Your task to perform on an android device: turn on location history Image 0: 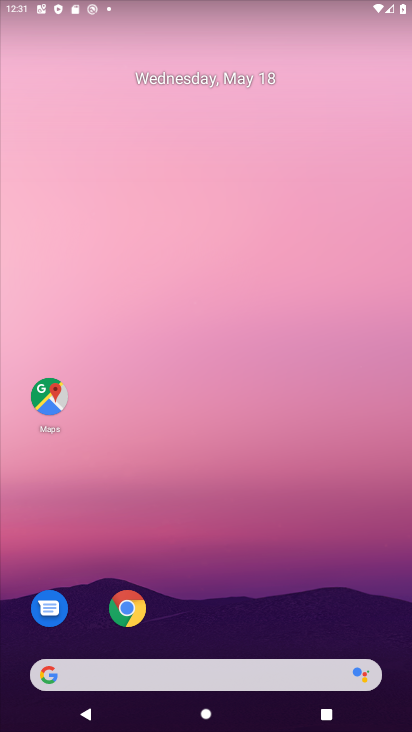
Step 0: drag from (260, 718) to (193, 12)
Your task to perform on an android device: turn on location history Image 1: 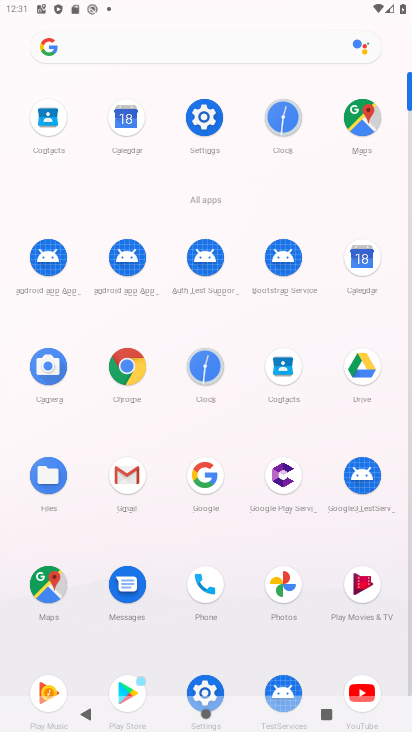
Step 1: click (215, 112)
Your task to perform on an android device: turn on location history Image 2: 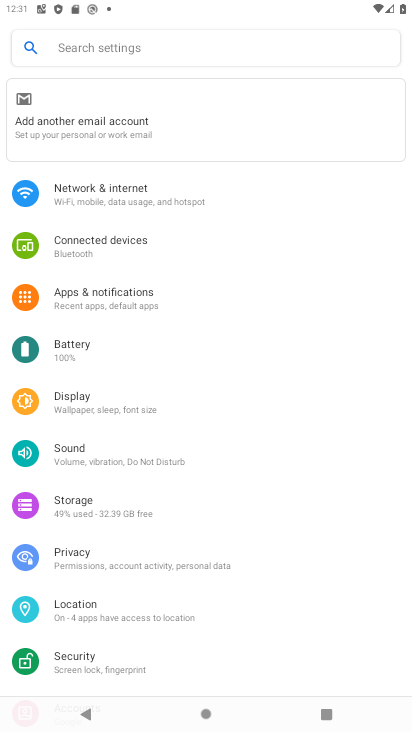
Step 2: click (144, 609)
Your task to perform on an android device: turn on location history Image 3: 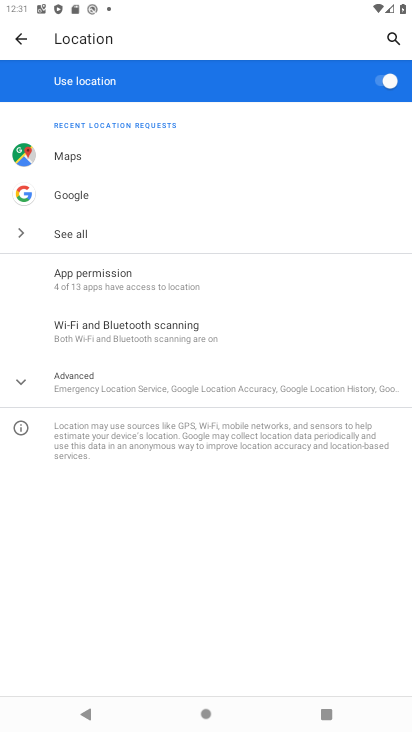
Step 3: task complete